Your task to perform on an android device: allow notifications from all sites in the chrome app Image 0: 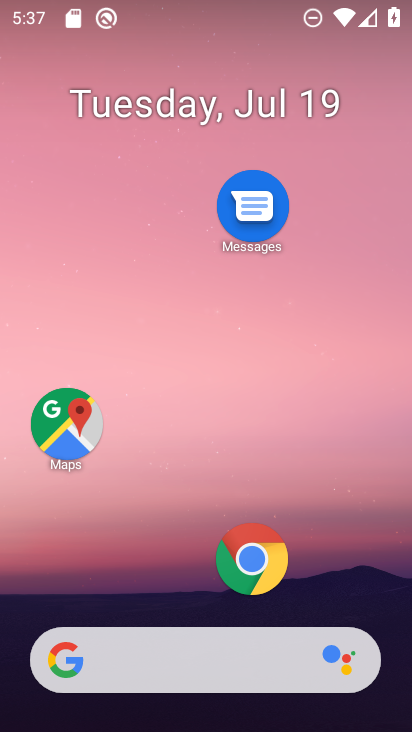
Step 0: drag from (135, 453) to (178, 41)
Your task to perform on an android device: allow notifications from all sites in the chrome app Image 1: 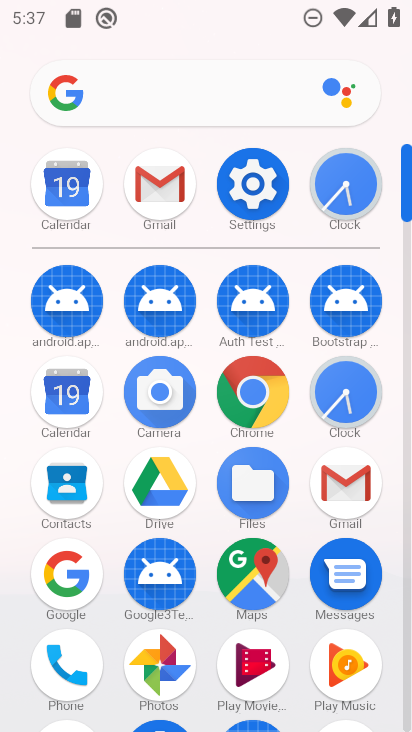
Step 1: click (252, 410)
Your task to perform on an android device: allow notifications from all sites in the chrome app Image 2: 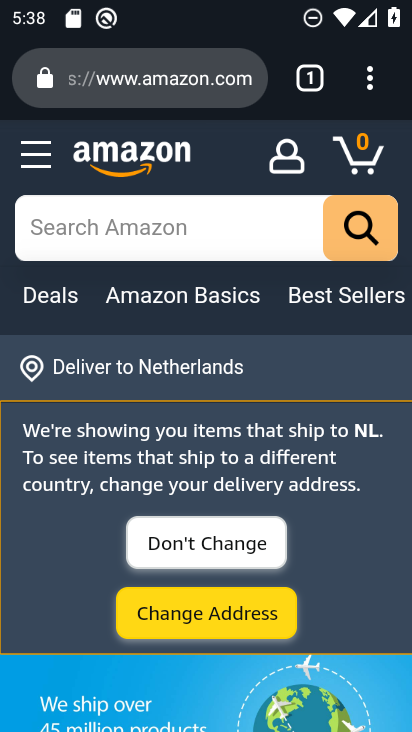
Step 2: drag from (374, 66) to (91, 614)
Your task to perform on an android device: allow notifications from all sites in the chrome app Image 3: 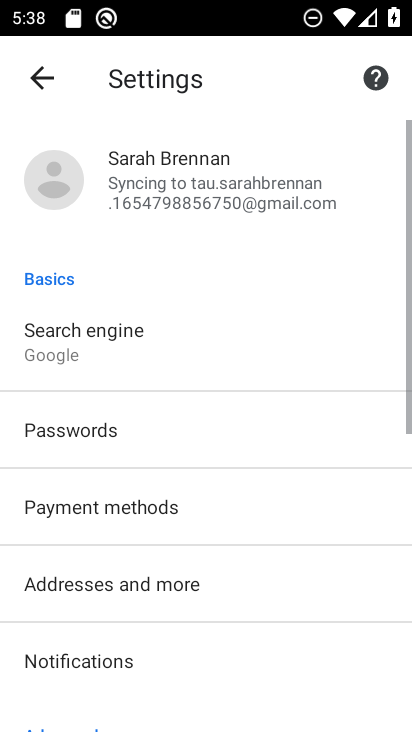
Step 3: drag from (81, 627) to (115, 330)
Your task to perform on an android device: allow notifications from all sites in the chrome app Image 4: 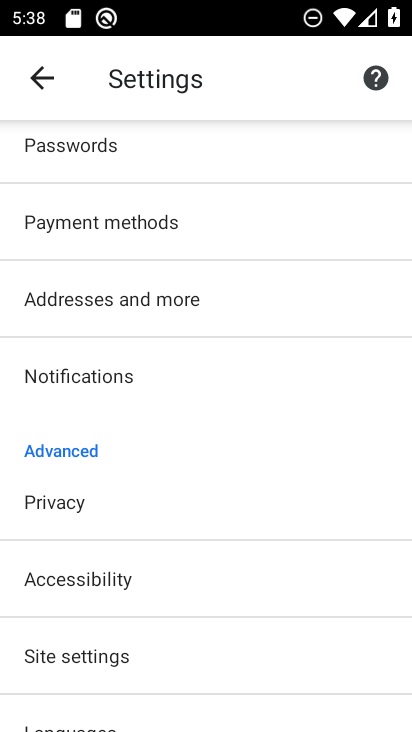
Step 4: click (107, 384)
Your task to perform on an android device: allow notifications from all sites in the chrome app Image 5: 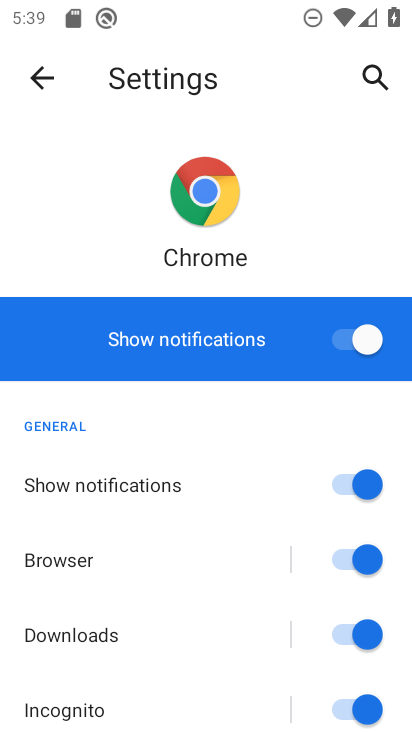
Step 5: task complete